Your task to perform on an android device: set an alarm Image 0: 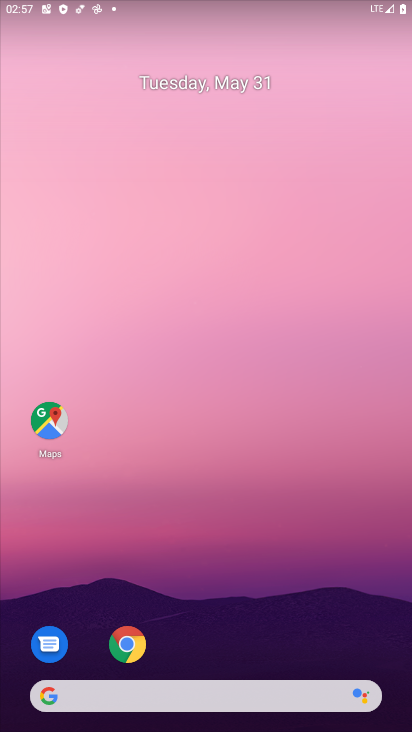
Step 0: drag from (253, 568) to (205, 63)
Your task to perform on an android device: set an alarm Image 1: 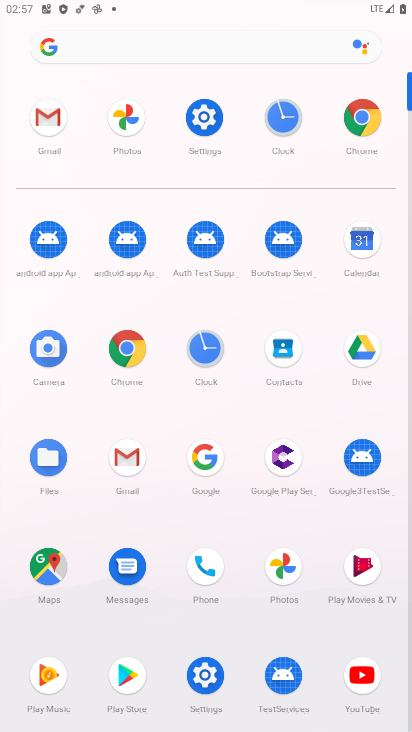
Step 1: click (197, 347)
Your task to perform on an android device: set an alarm Image 2: 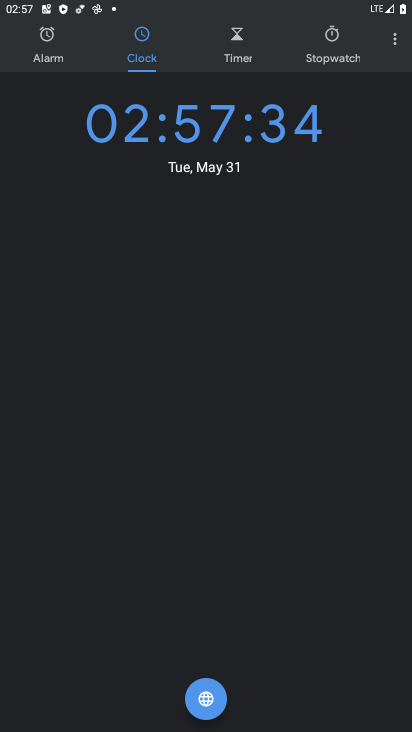
Step 2: click (52, 49)
Your task to perform on an android device: set an alarm Image 3: 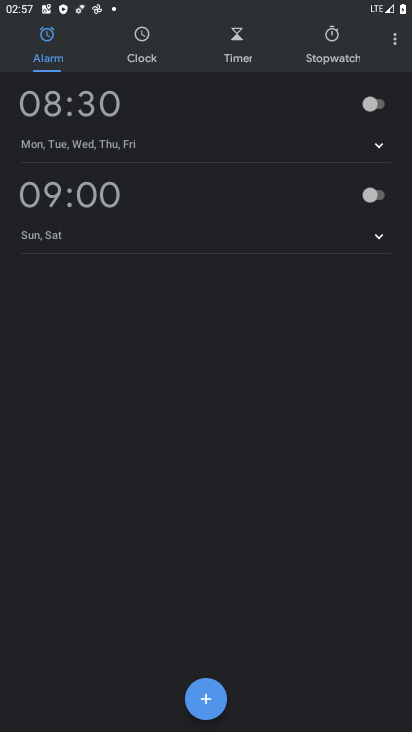
Step 3: click (201, 707)
Your task to perform on an android device: set an alarm Image 4: 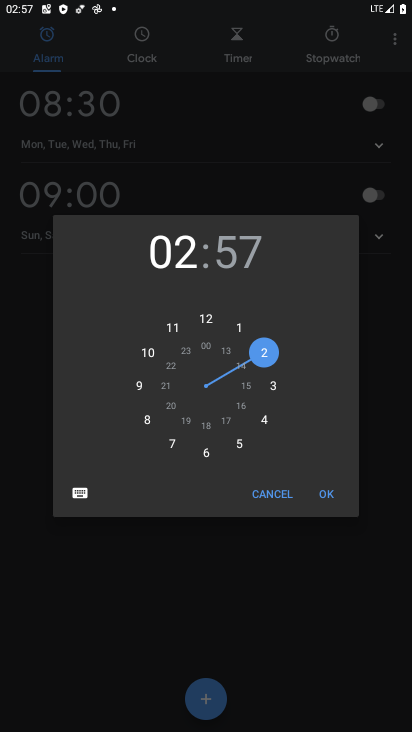
Step 4: click (335, 497)
Your task to perform on an android device: set an alarm Image 5: 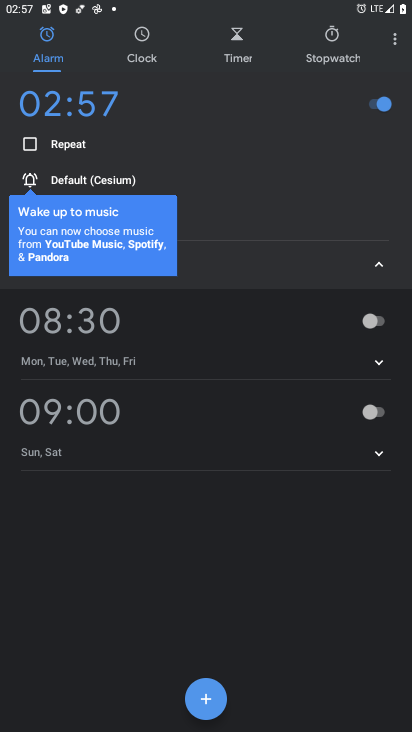
Step 5: task complete